Your task to perform on an android device: uninstall "Google Chat" Image 0: 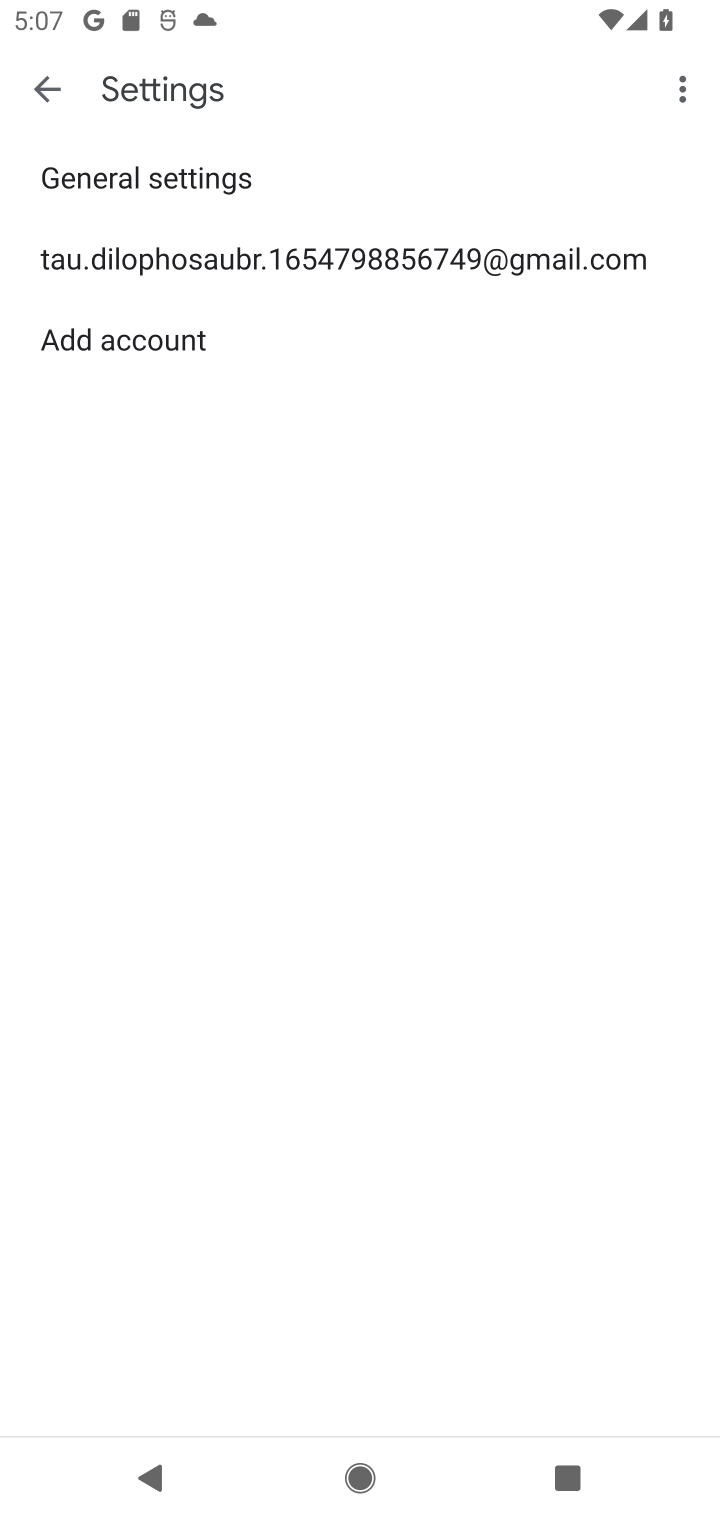
Step 0: press home button
Your task to perform on an android device: uninstall "Google Chat" Image 1: 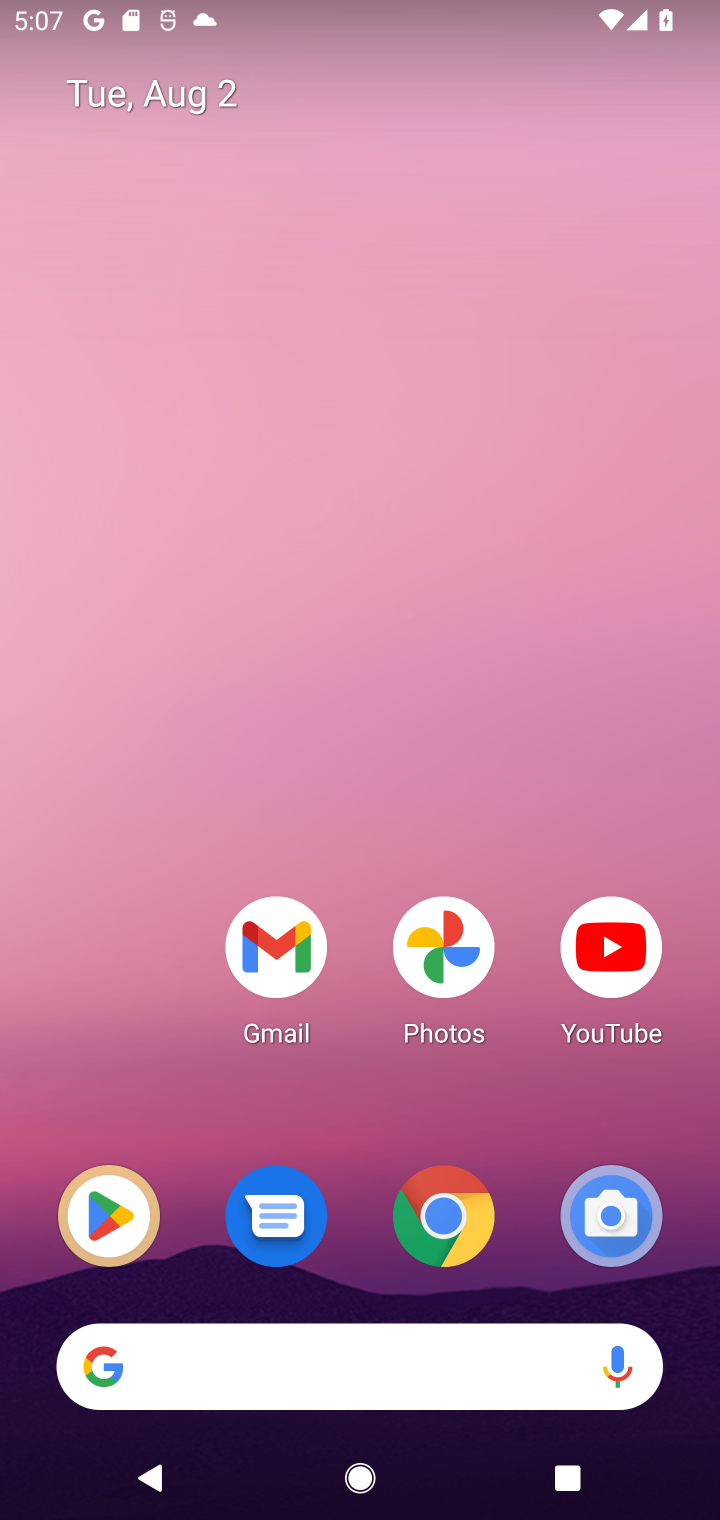
Step 1: click (102, 1228)
Your task to perform on an android device: uninstall "Google Chat" Image 2: 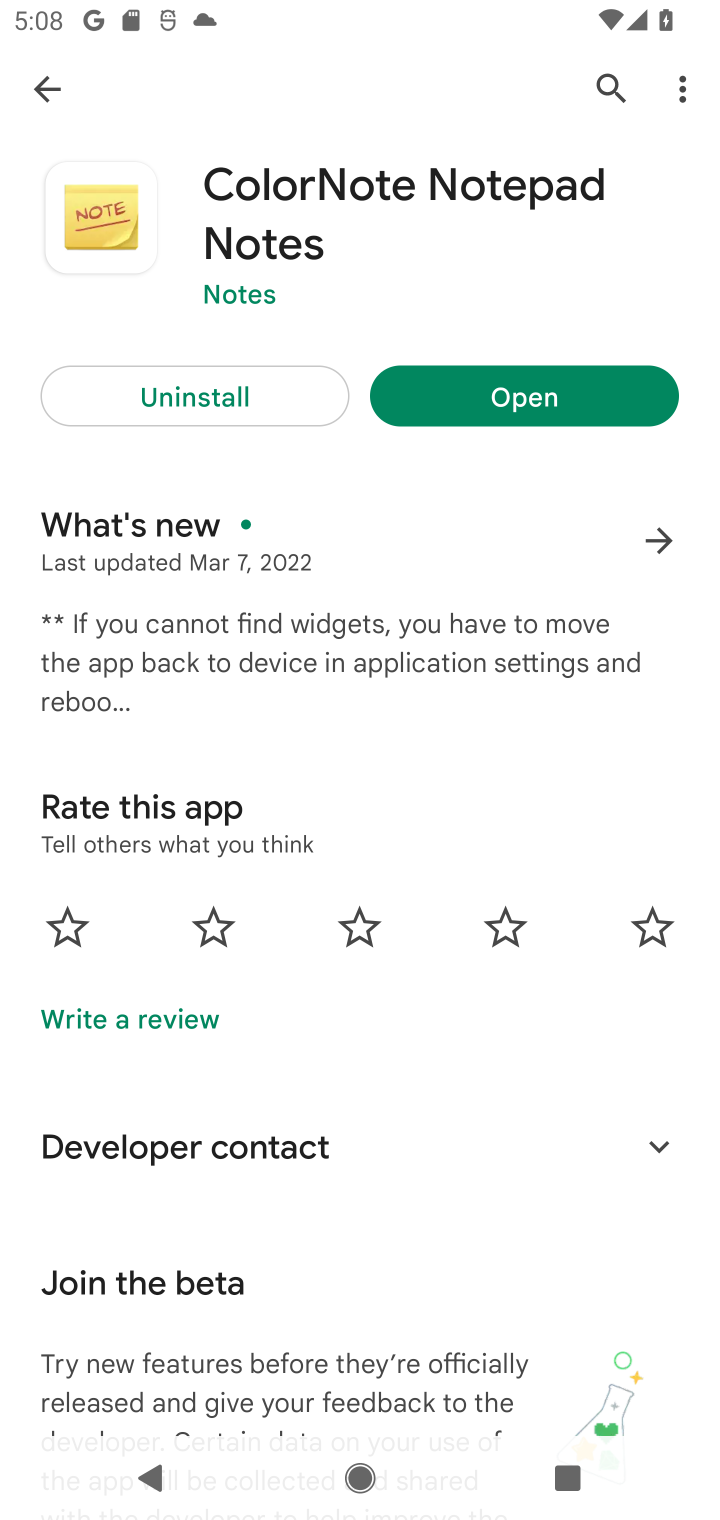
Step 2: click (614, 102)
Your task to perform on an android device: uninstall "Google Chat" Image 3: 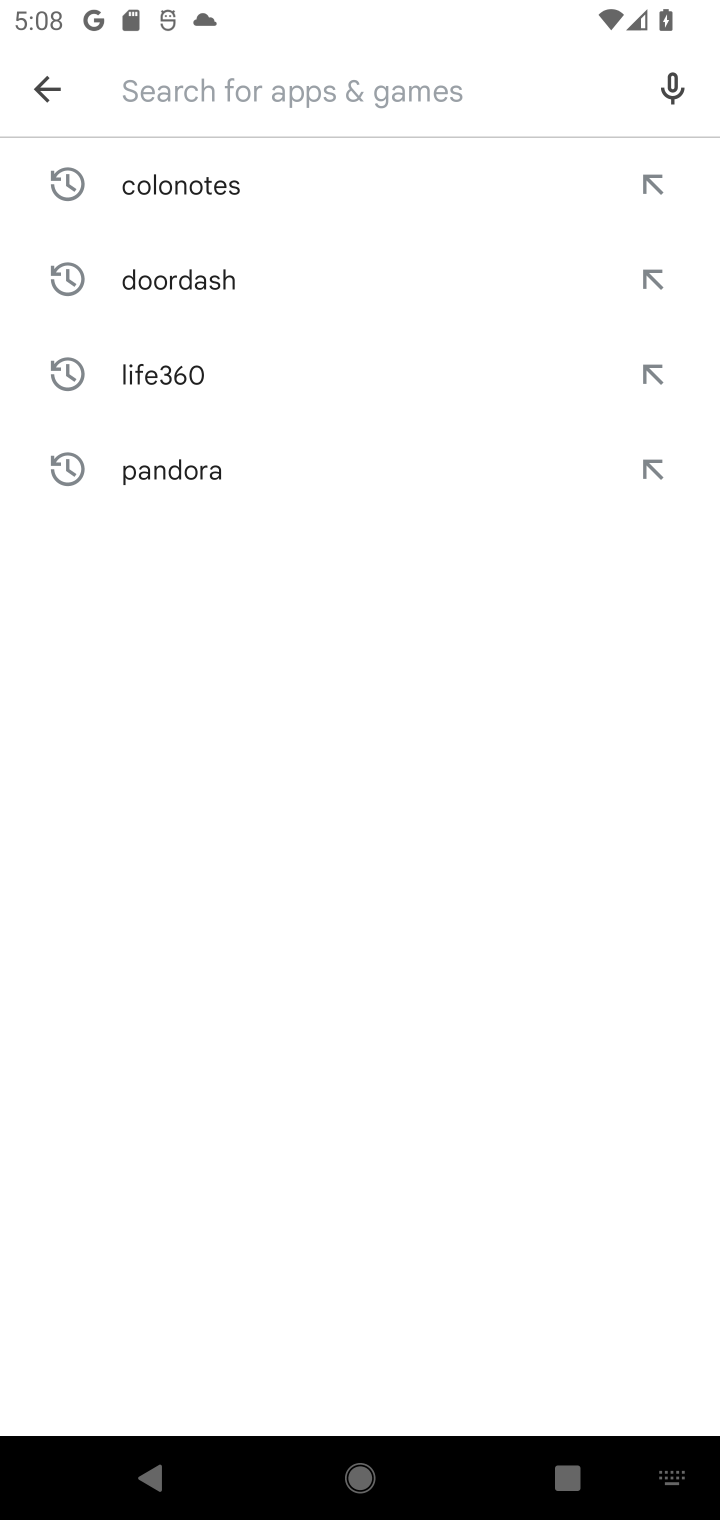
Step 3: type "google chat"
Your task to perform on an android device: uninstall "Google Chat" Image 4: 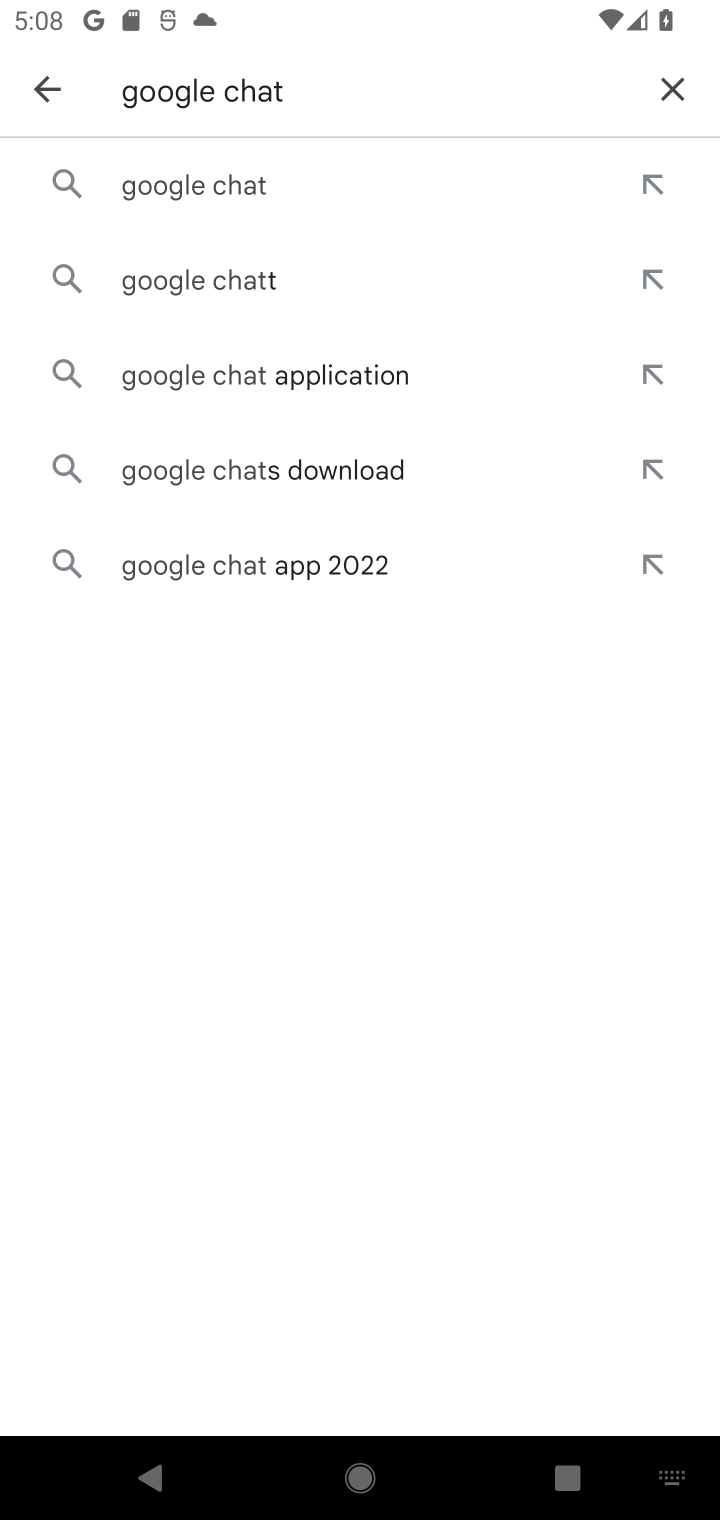
Step 4: click (356, 198)
Your task to perform on an android device: uninstall "Google Chat" Image 5: 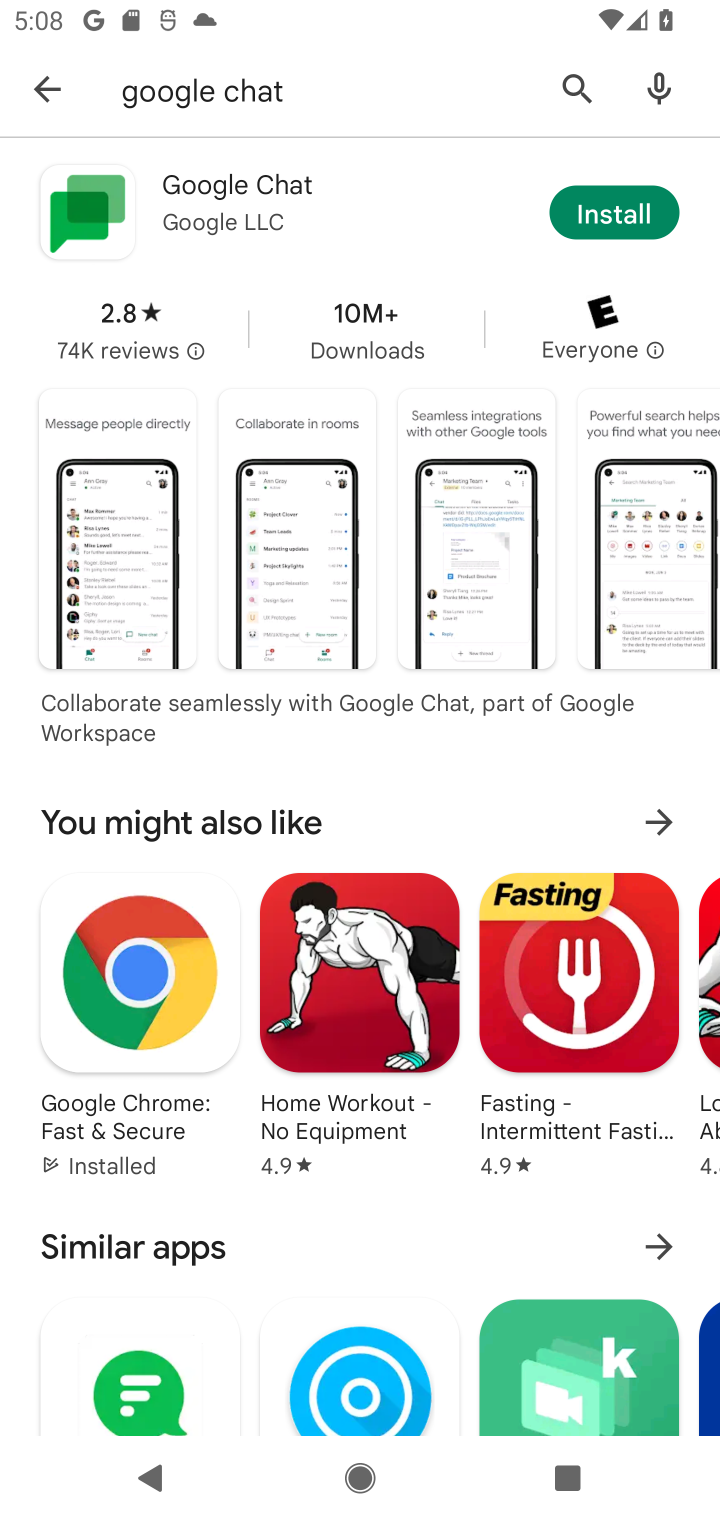
Step 5: click (595, 221)
Your task to perform on an android device: uninstall "Google Chat" Image 6: 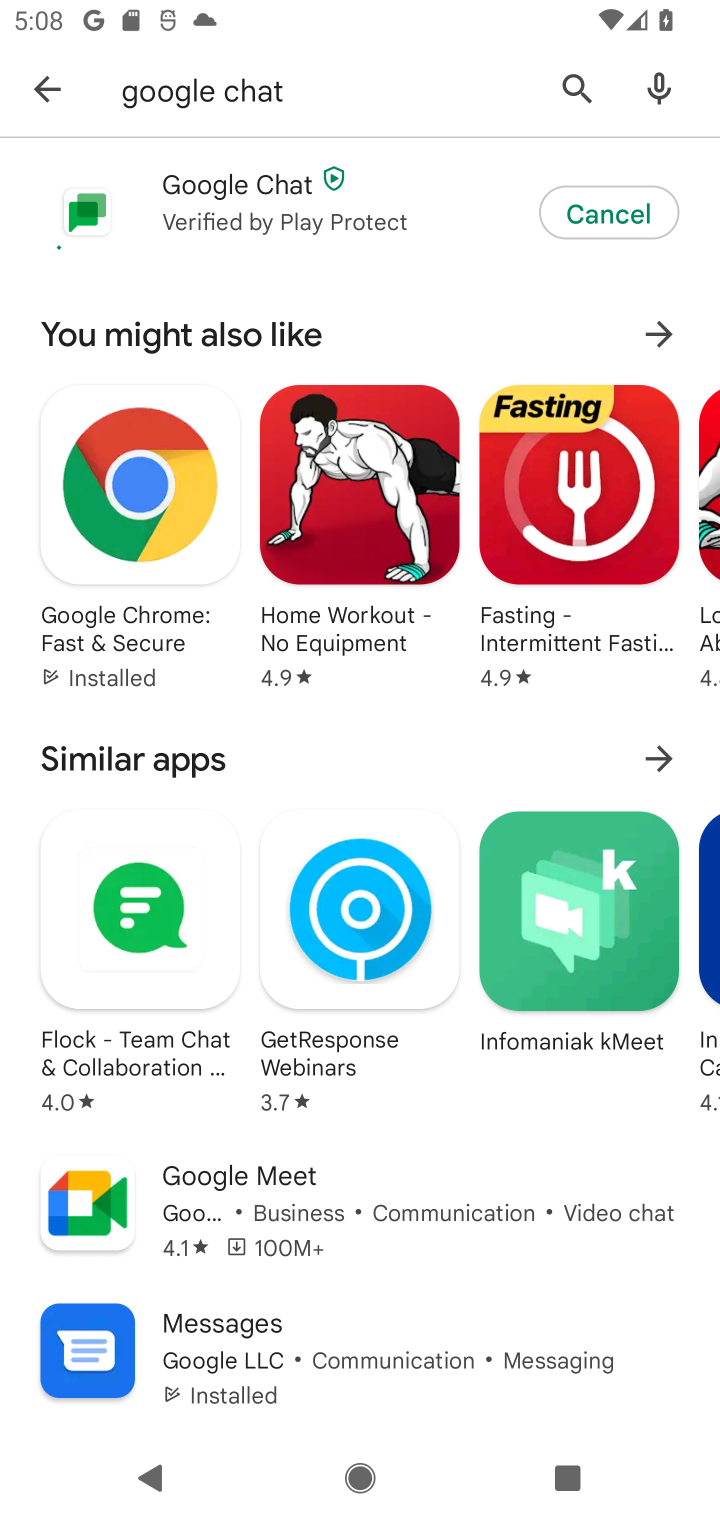
Step 6: task complete